Your task to perform on an android device: turn off javascript in the chrome app Image 0: 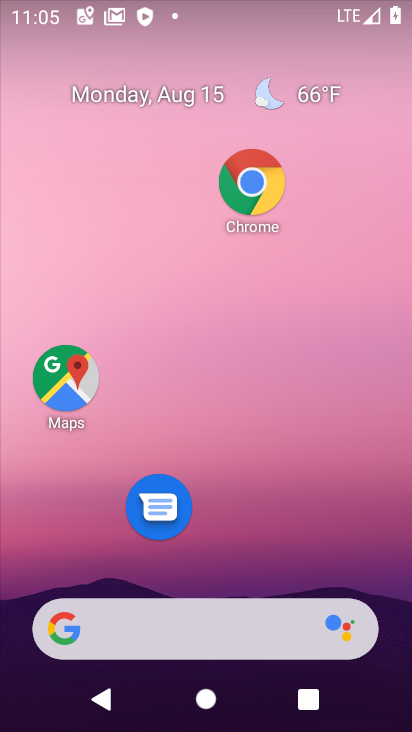
Step 0: task complete